Your task to perform on an android device: Is it going to rain tomorrow? Image 0: 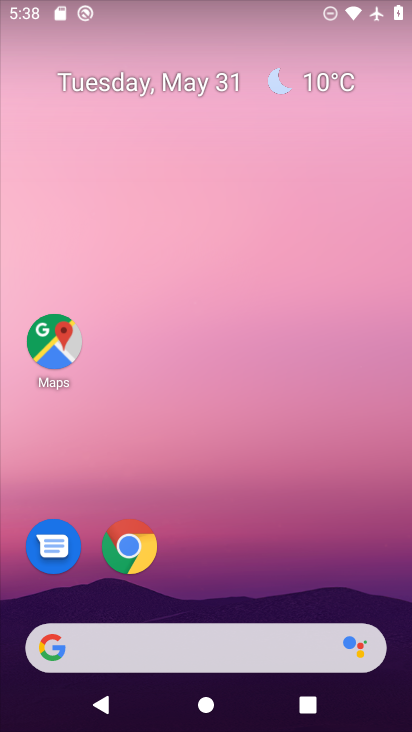
Step 0: drag from (234, 564) to (248, 709)
Your task to perform on an android device: Is it going to rain tomorrow? Image 1: 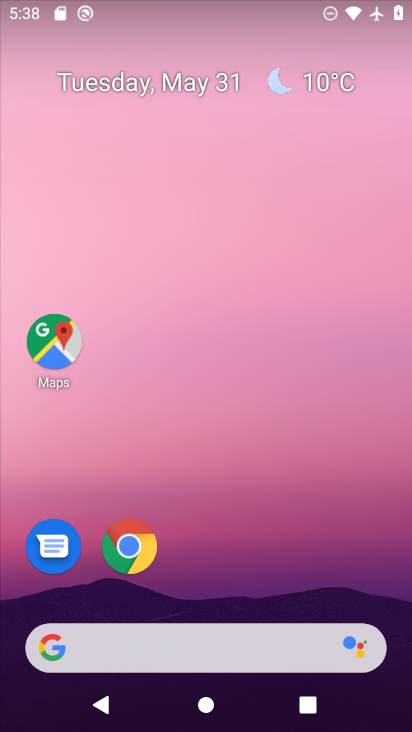
Step 1: click (320, 73)
Your task to perform on an android device: Is it going to rain tomorrow? Image 2: 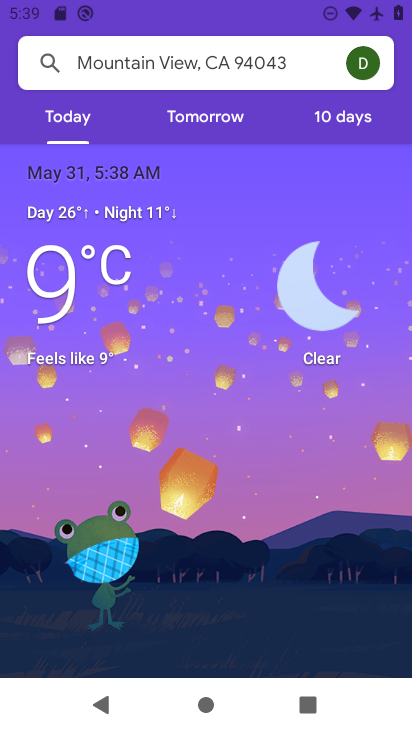
Step 2: click (191, 118)
Your task to perform on an android device: Is it going to rain tomorrow? Image 3: 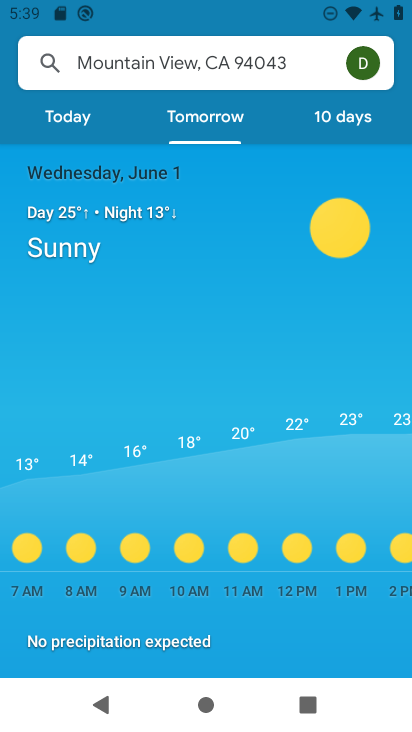
Step 3: task complete